Your task to perform on an android device: Show me the alarms in the clock app Image 0: 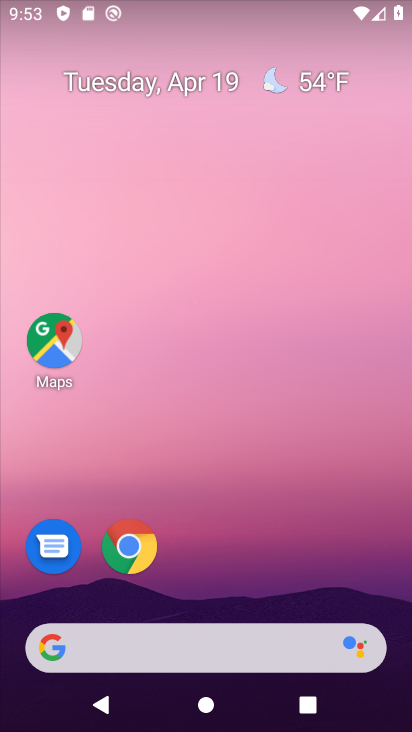
Step 0: drag from (261, 293) to (280, 158)
Your task to perform on an android device: Show me the alarms in the clock app Image 1: 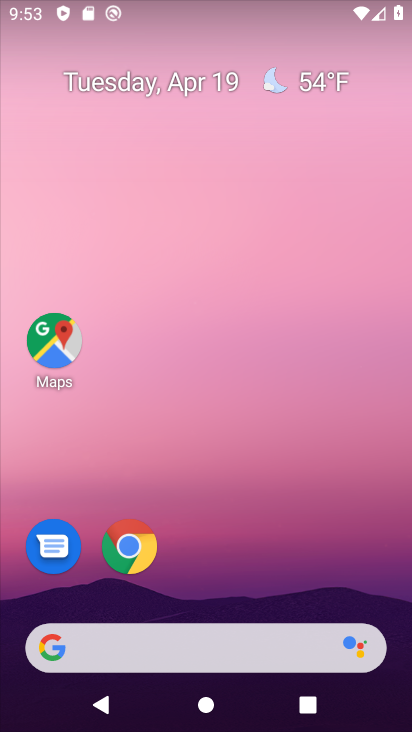
Step 1: drag from (262, 711) to (263, 139)
Your task to perform on an android device: Show me the alarms in the clock app Image 2: 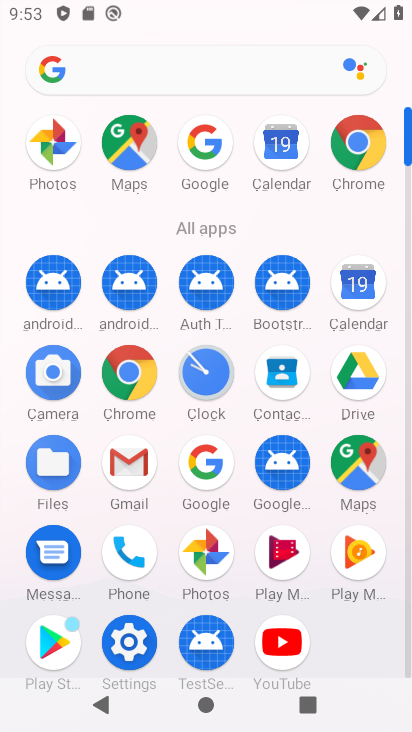
Step 2: click (208, 377)
Your task to perform on an android device: Show me the alarms in the clock app Image 3: 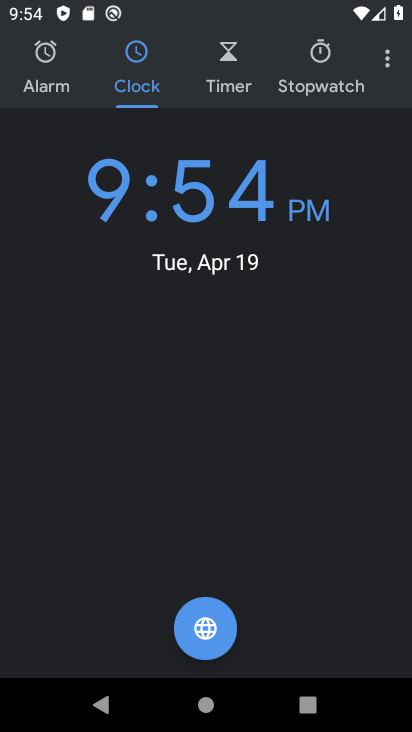
Step 3: click (54, 72)
Your task to perform on an android device: Show me the alarms in the clock app Image 4: 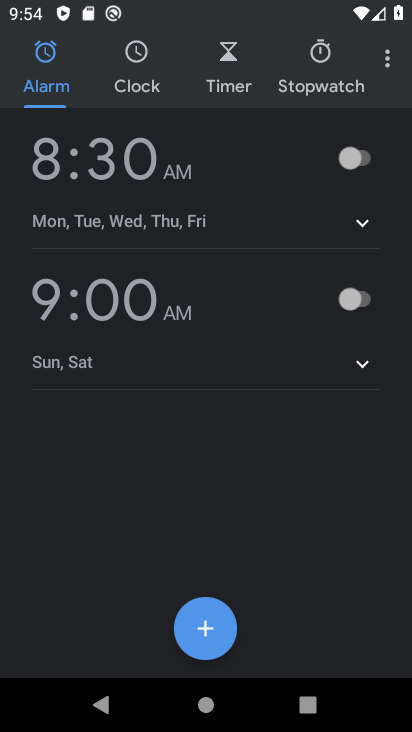
Step 4: task complete